Your task to perform on an android device: Open Google Maps and go to "Timeline" Image 0: 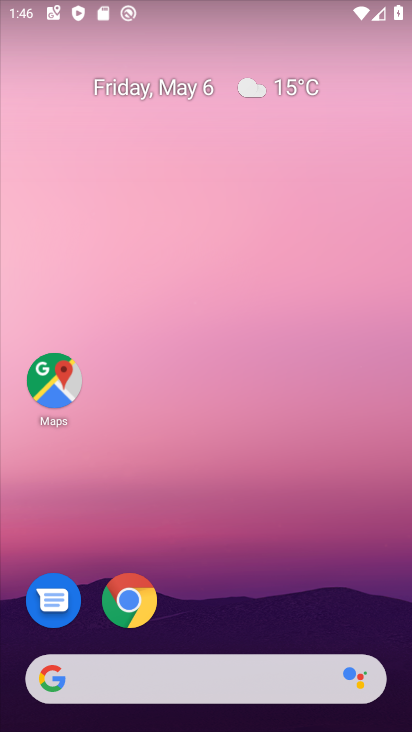
Step 0: drag from (279, 618) to (245, 51)
Your task to perform on an android device: Open Google Maps and go to "Timeline" Image 1: 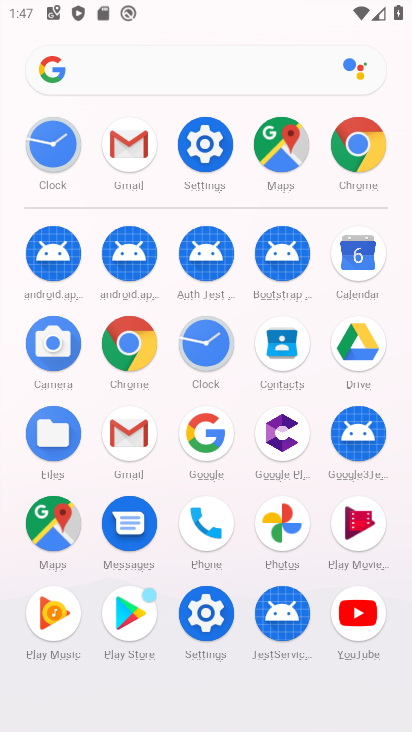
Step 1: click (39, 514)
Your task to perform on an android device: Open Google Maps and go to "Timeline" Image 2: 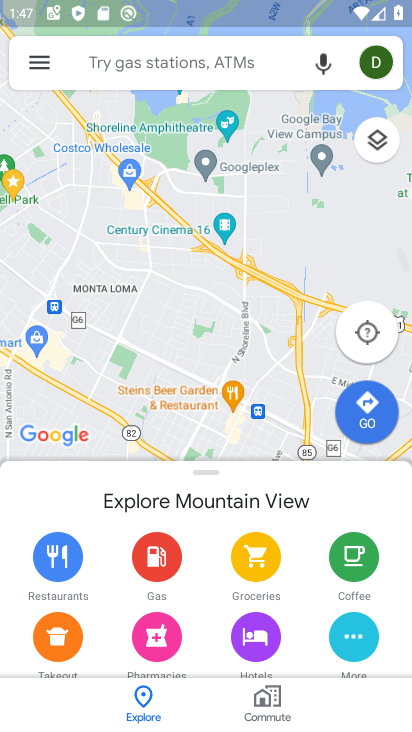
Step 2: click (47, 67)
Your task to perform on an android device: Open Google Maps and go to "Timeline" Image 3: 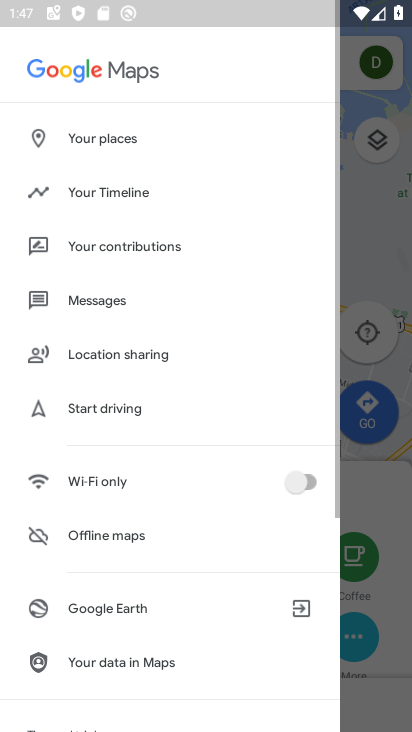
Step 3: click (128, 183)
Your task to perform on an android device: Open Google Maps and go to "Timeline" Image 4: 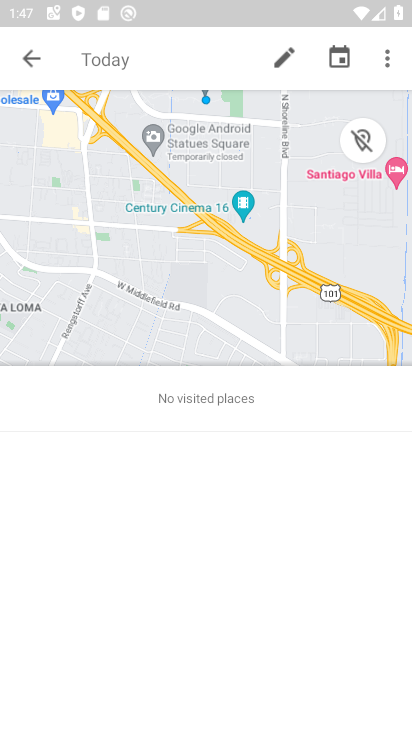
Step 4: task complete